Your task to perform on an android device: open chrome and create a bookmark for the current page Image 0: 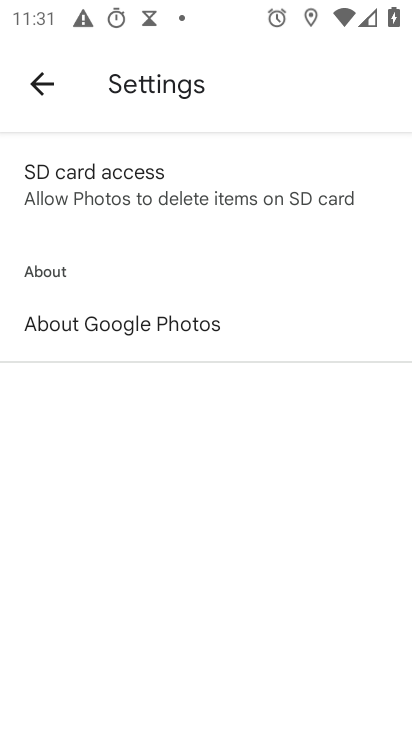
Step 0: press home button
Your task to perform on an android device: open chrome and create a bookmark for the current page Image 1: 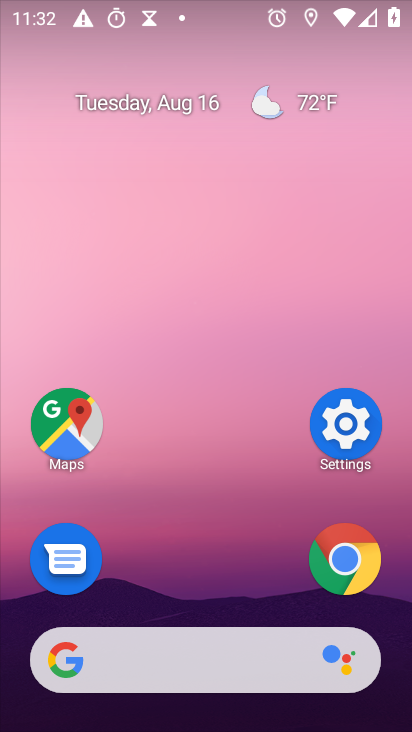
Step 1: click (342, 557)
Your task to perform on an android device: open chrome and create a bookmark for the current page Image 2: 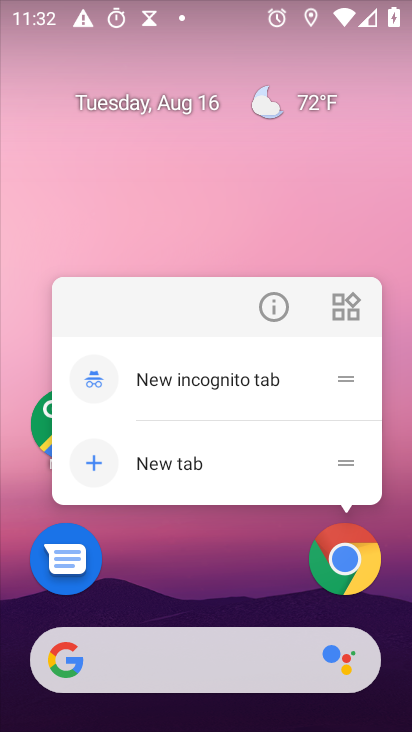
Step 2: click (342, 557)
Your task to perform on an android device: open chrome and create a bookmark for the current page Image 3: 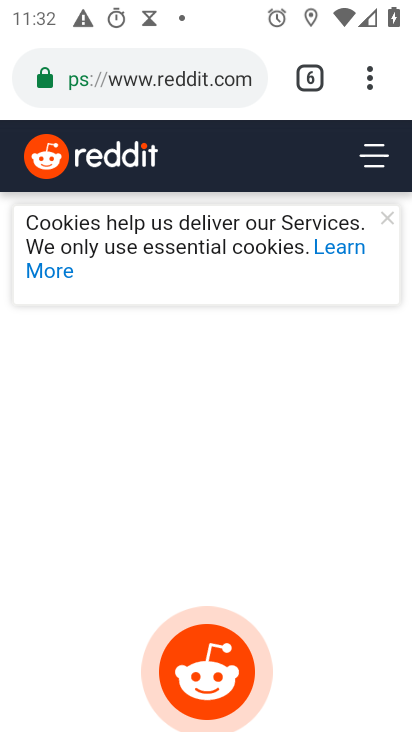
Step 3: click (367, 104)
Your task to perform on an android device: open chrome and create a bookmark for the current page Image 4: 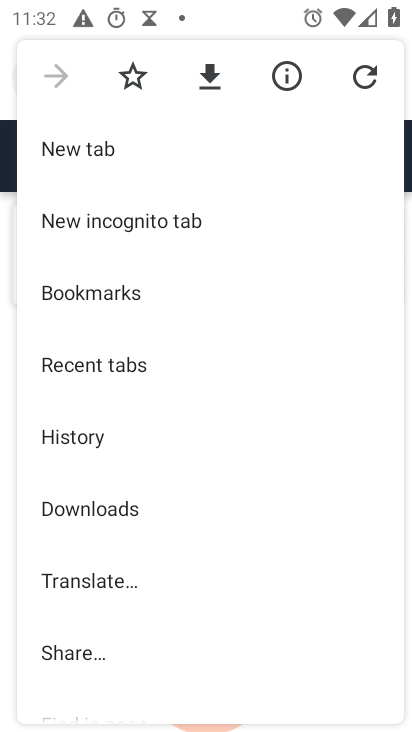
Step 4: click (134, 77)
Your task to perform on an android device: open chrome and create a bookmark for the current page Image 5: 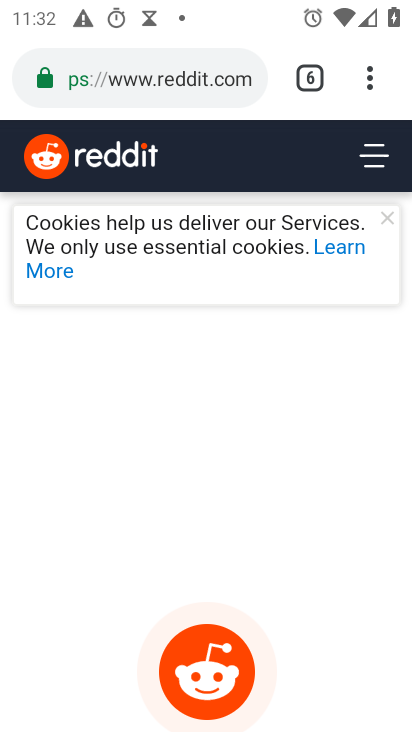
Step 5: task complete